Your task to perform on an android device: Search for the new nike air max shoes on Nike. Image 0: 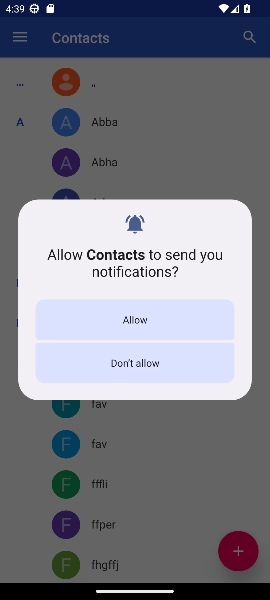
Step 0: press enter
Your task to perform on an android device: Search for the new nike air max shoes on Nike. Image 1: 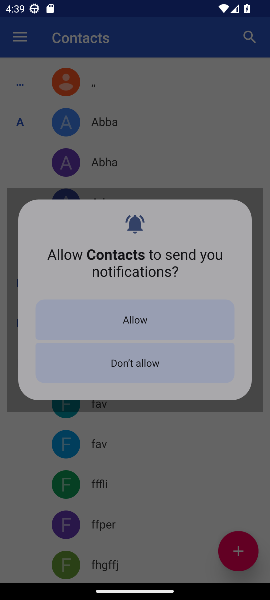
Step 1: press enter
Your task to perform on an android device: Search for the new nike air max shoes on Nike. Image 2: 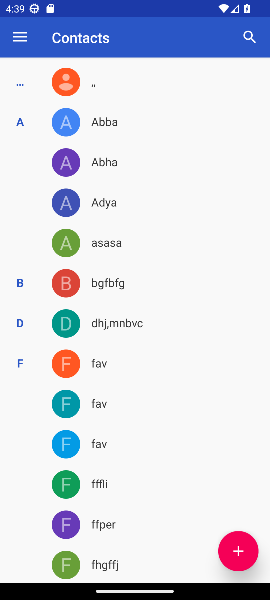
Step 2: press home button
Your task to perform on an android device: Search for the new nike air max shoes on Nike. Image 3: 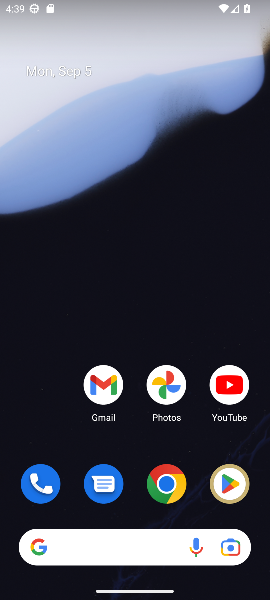
Step 3: click (160, 480)
Your task to perform on an android device: Search for the new nike air max shoes on Nike. Image 4: 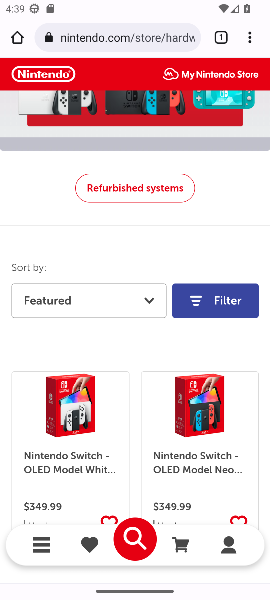
Step 4: click (160, 483)
Your task to perform on an android device: Search for the new nike air max shoes on Nike. Image 5: 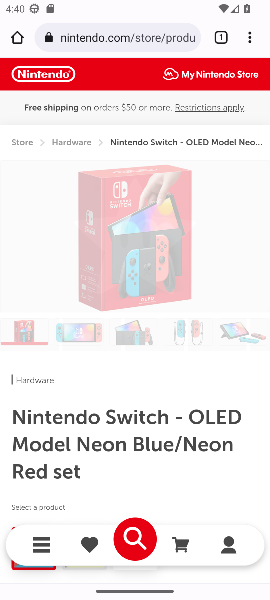
Step 5: click (156, 38)
Your task to perform on an android device: Search for the new nike air max shoes on Nike. Image 6: 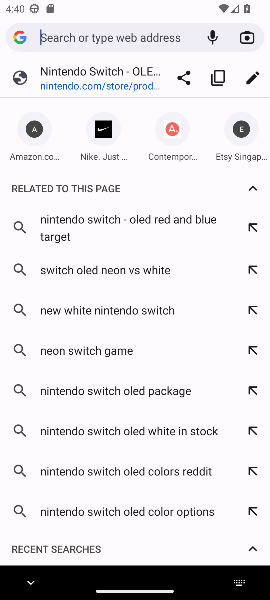
Step 6: press enter
Your task to perform on an android device: Search for the new nike air max shoes on Nike. Image 7: 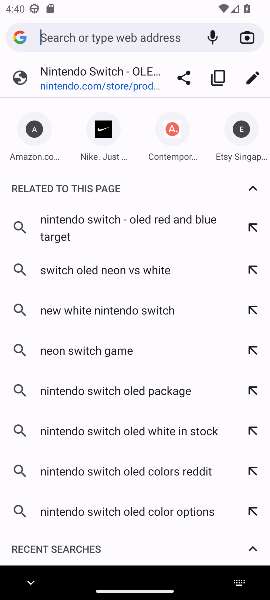
Step 7: type "Nike"
Your task to perform on an android device: Search for the new nike air max shoes on Nike. Image 8: 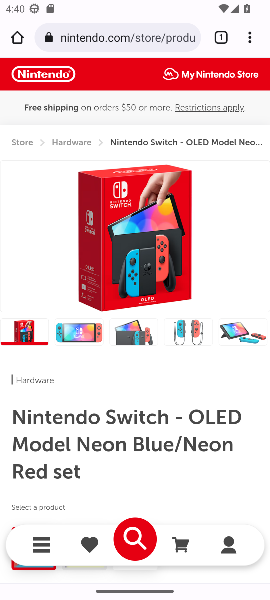
Step 8: click (125, 42)
Your task to perform on an android device: Search for the new nike air max shoes on Nike. Image 9: 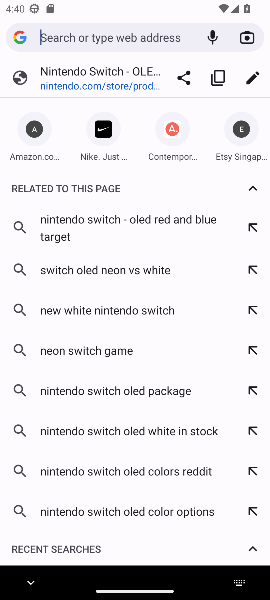
Step 9: type "Nike"
Your task to perform on an android device: Search for the new nike air max shoes on Nike. Image 10: 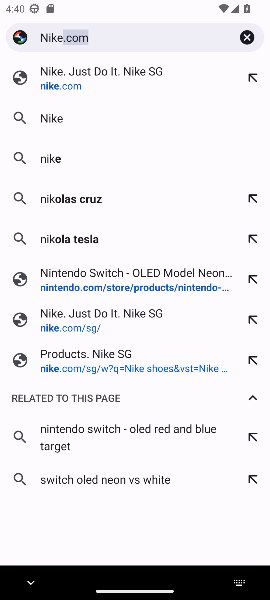
Step 10: press enter
Your task to perform on an android device: Search for the new nike air max shoes on Nike. Image 11: 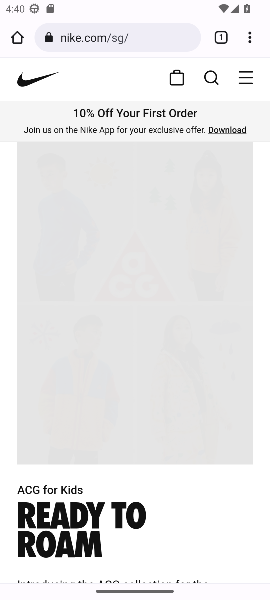
Step 11: click (201, 71)
Your task to perform on an android device: Search for the new nike air max shoes on Nike. Image 12: 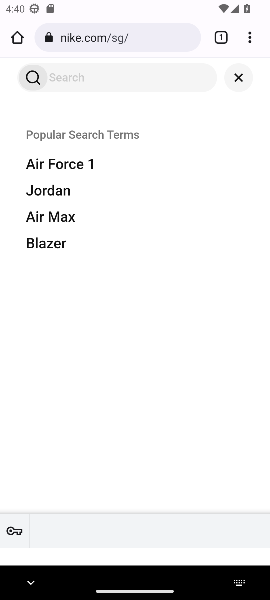
Step 12: click (83, 76)
Your task to perform on an android device: Search for the new nike air max shoes on Nike. Image 13: 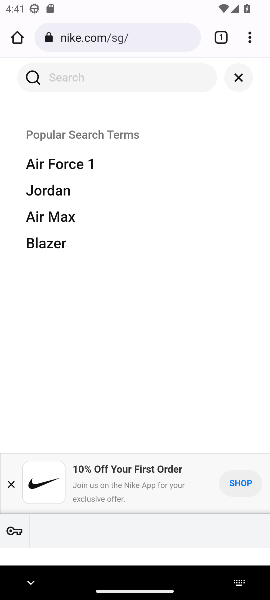
Step 13: type "air max shoes"
Your task to perform on an android device: Search for the new nike air max shoes on Nike. Image 14: 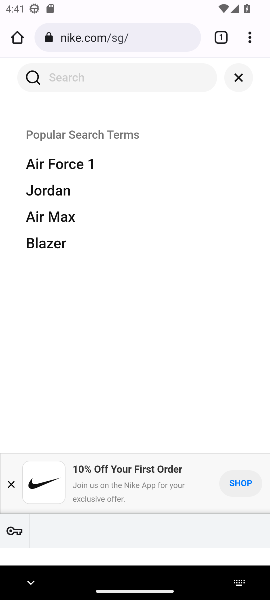
Step 14: press enter
Your task to perform on an android device: Search for the new nike air max shoes on Nike. Image 15: 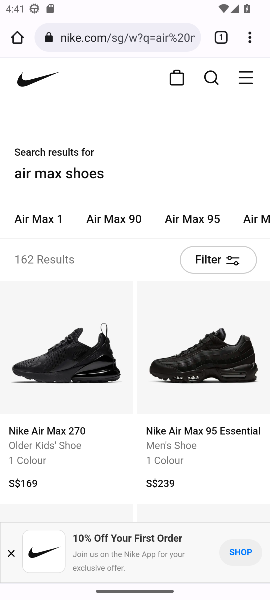
Step 15: task complete